Your task to perform on an android device: Show me recent news Image 0: 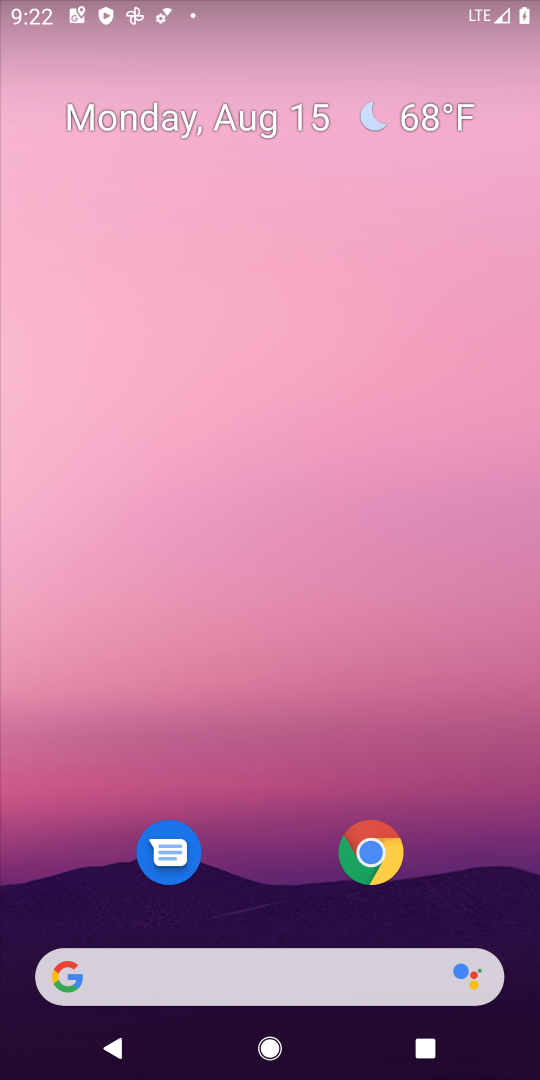
Step 0: drag from (199, 966) to (260, 136)
Your task to perform on an android device: Show me recent news Image 1: 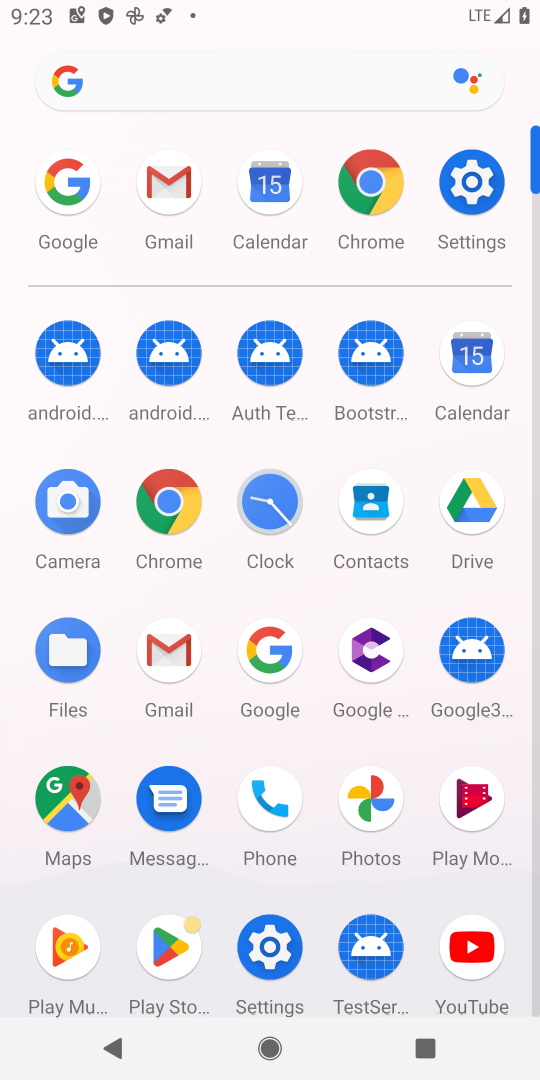
Step 1: click (263, 649)
Your task to perform on an android device: Show me recent news Image 2: 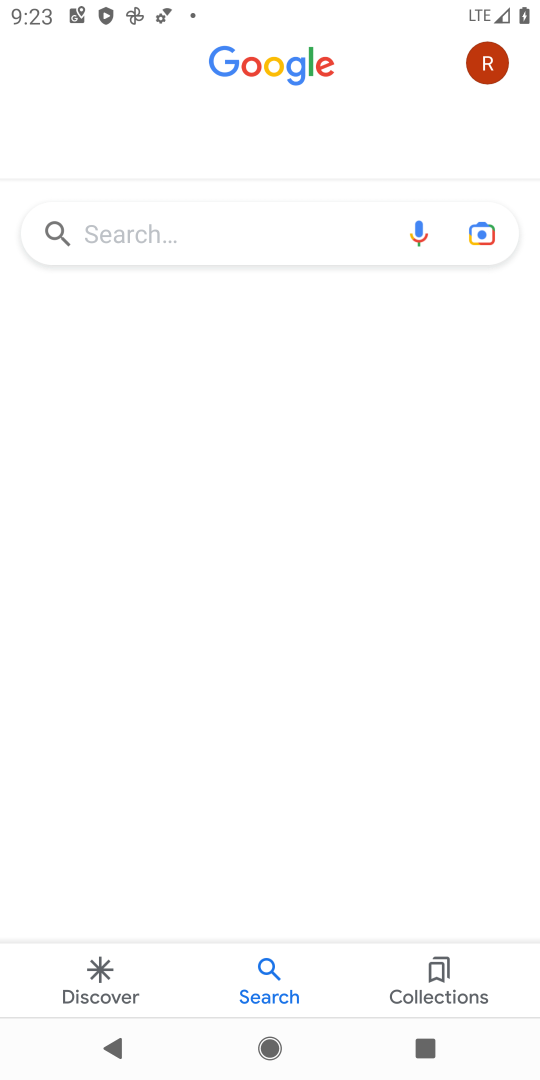
Step 2: click (249, 249)
Your task to perform on an android device: Show me recent news Image 3: 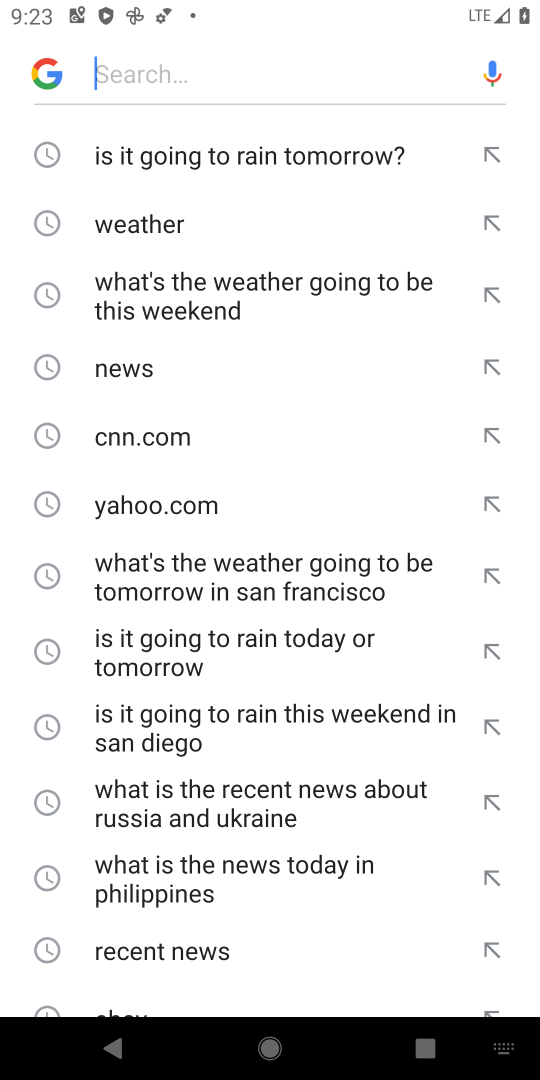
Step 3: type "recent news"
Your task to perform on an android device: Show me recent news Image 4: 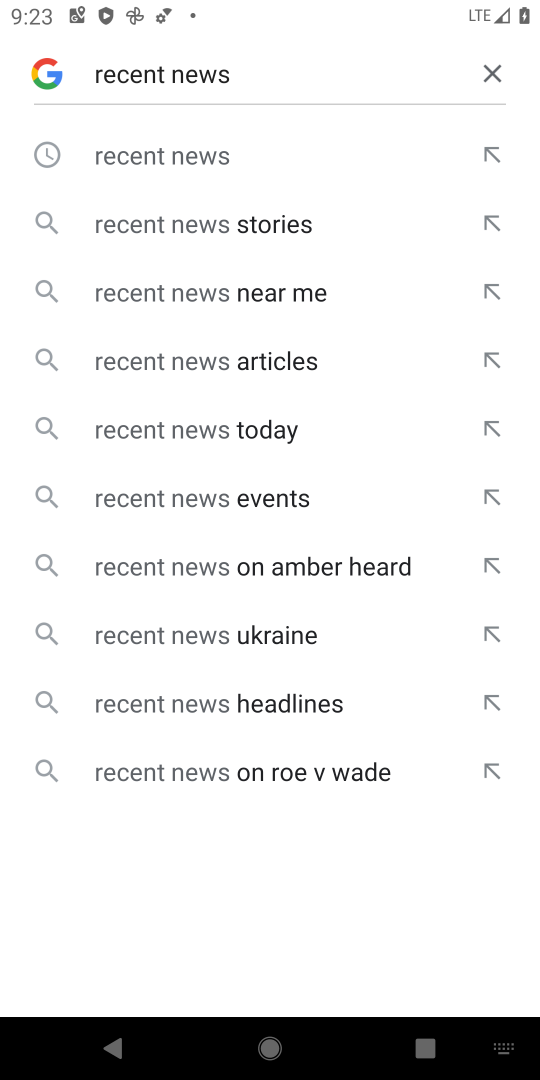
Step 4: click (146, 162)
Your task to perform on an android device: Show me recent news Image 5: 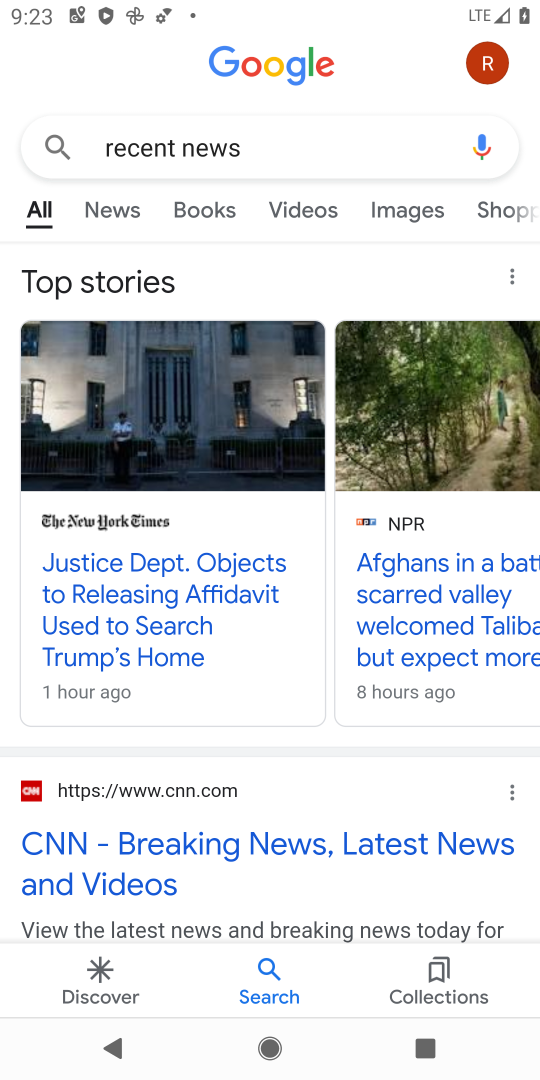
Step 5: click (154, 626)
Your task to perform on an android device: Show me recent news Image 6: 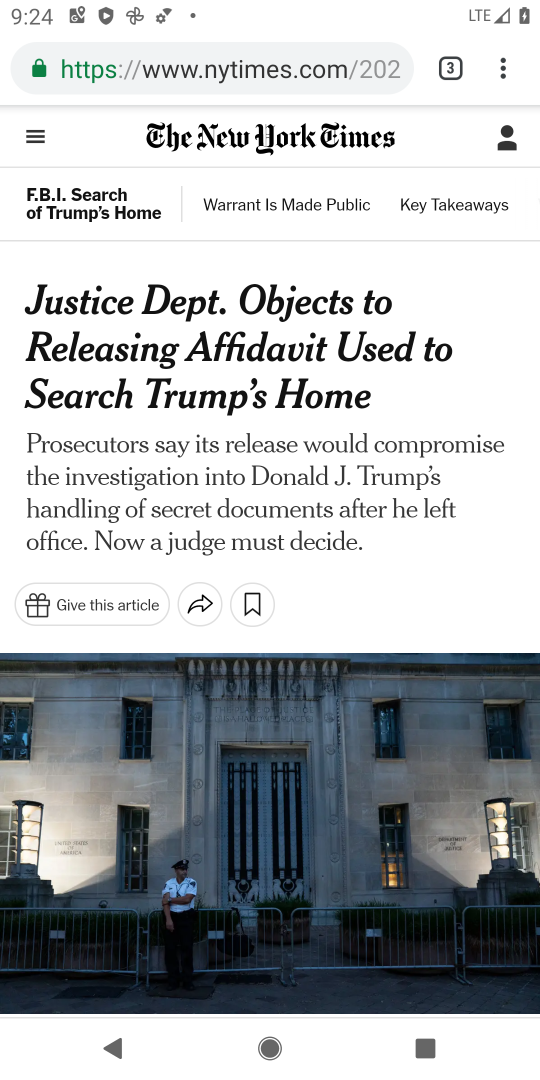
Step 6: task complete